Your task to perform on an android device: Go to Reddit.com Image 0: 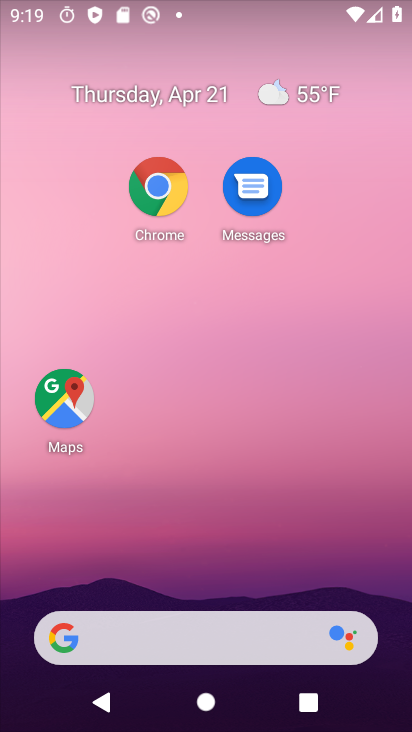
Step 0: click (222, 620)
Your task to perform on an android device: Go to Reddit.com Image 1: 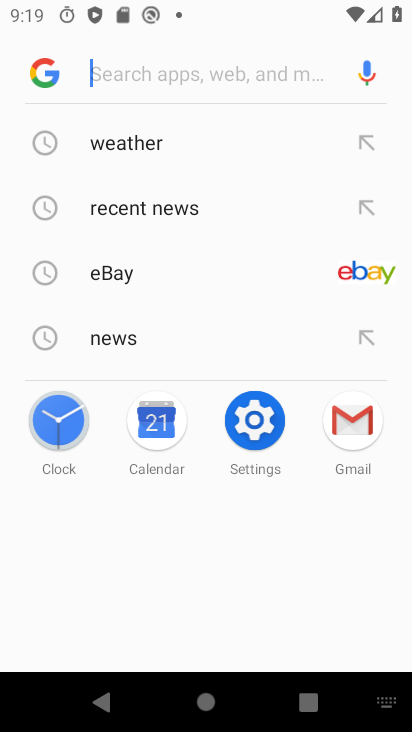
Step 1: type "Reddit.com"
Your task to perform on an android device: Go to Reddit.com Image 2: 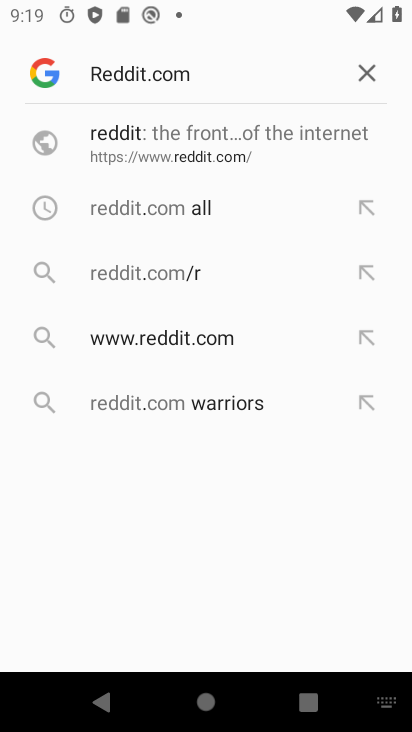
Step 2: click (242, 137)
Your task to perform on an android device: Go to Reddit.com Image 3: 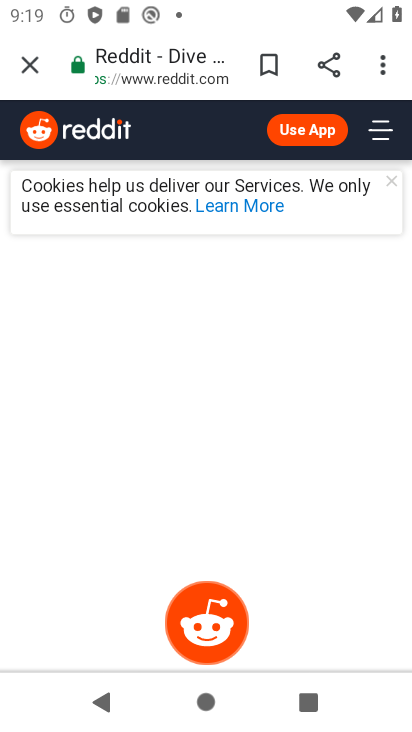
Step 3: task complete